Your task to perform on an android device: Open calendar and show me the third week of next month Image 0: 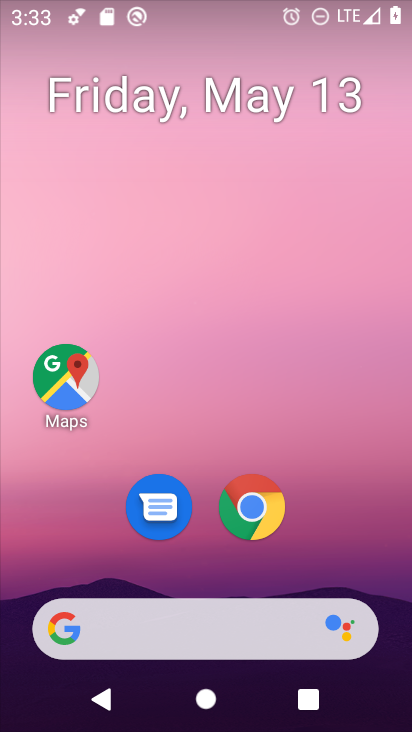
Step 0: drag from (353, 134) to (345, 34)
Your task to perform on an android device: Open calendar and show me the third week of next month Image 1: 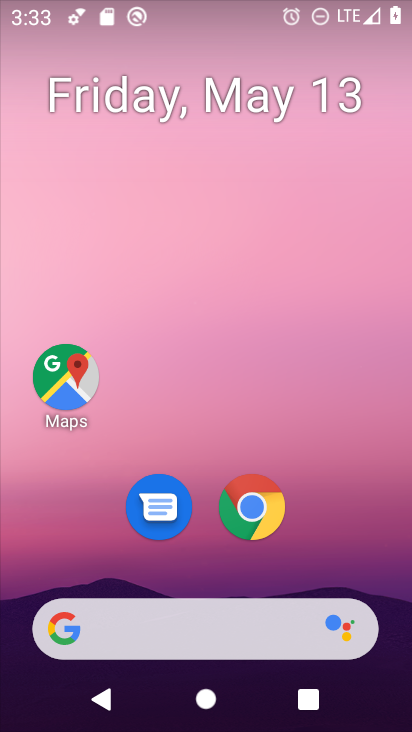
Step 1: drag from (330, 493) to (361, 64)
Your task to perform on an android device: Open calendar and show me the third week of next month Image 2: 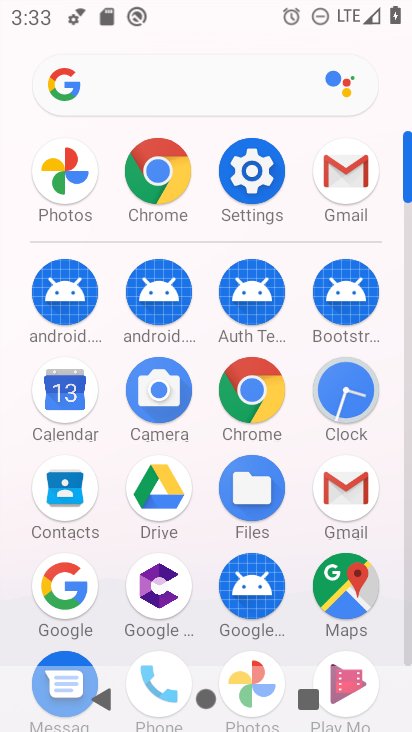
Step 2: click (75, 403)
Your task to perform on an android device: Open calendar and show me the third week of next month Image 3: 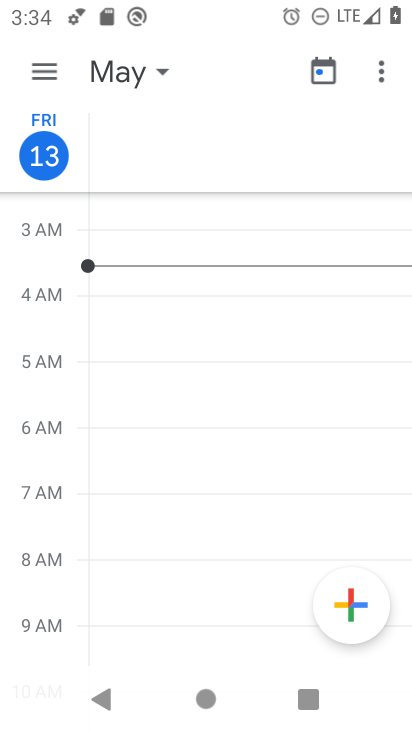
Step 3: click (126, 72)
Your task to perform on an android device: Open calendar and show me the third week of next month Image 4: 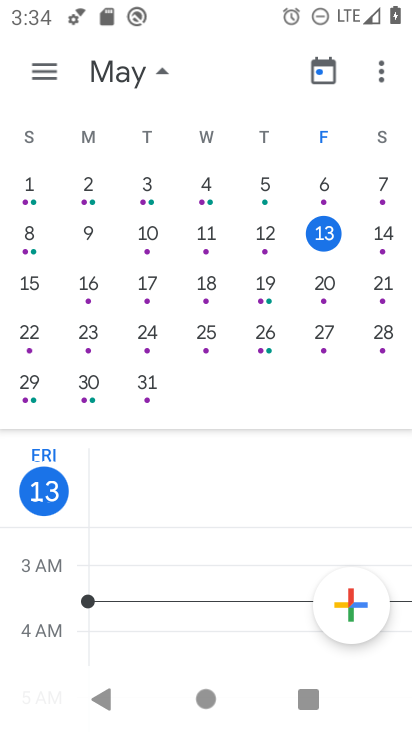
Step 4: click (33, 66)
Your task to perform on an android device: Open calendar and show me the third week of next month Image 5: 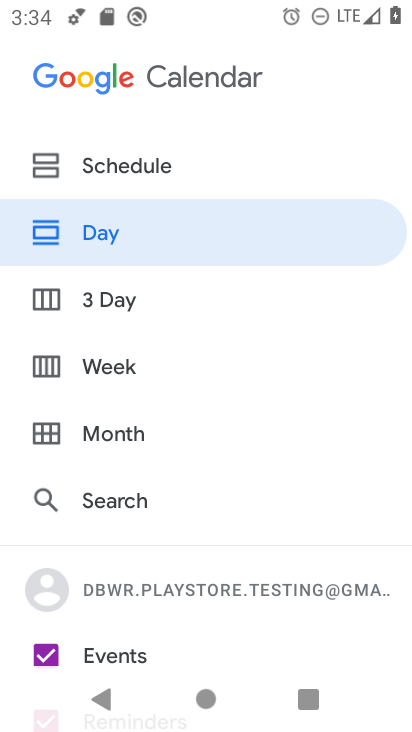
Step 5: click (194, 434)
Your task to perform on an android device: Open calendar and show me the third week of next month Image 6: 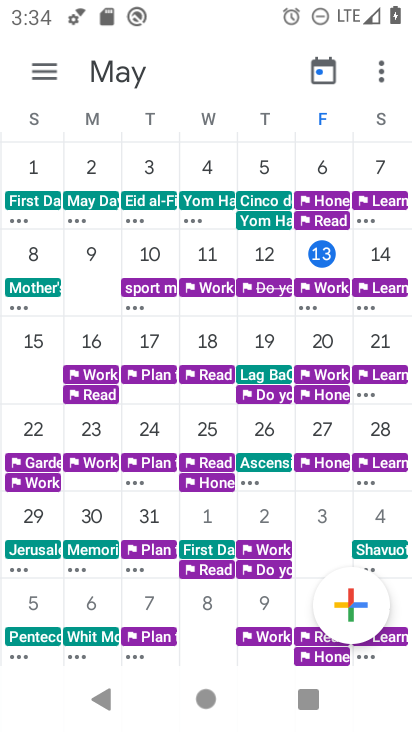
Step 6: task complete